Your task to perform on an android device: Search for "logitech g pro" on walmart.com, select the first entry, add it to the cart, then select checkout. Image 0: 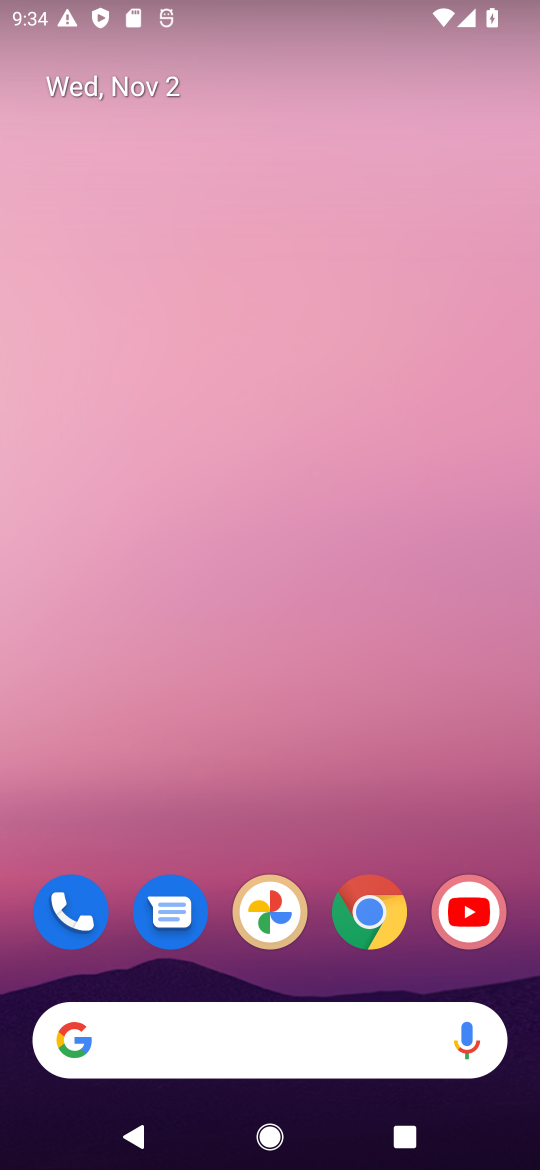
Step 0: drag from (320, 1065) to (177, 89)
Your task to perform on an android device: Search for "logitech g pro" on walmart.com, select the first entry, add it to the cart, then select checkout. Image 1: 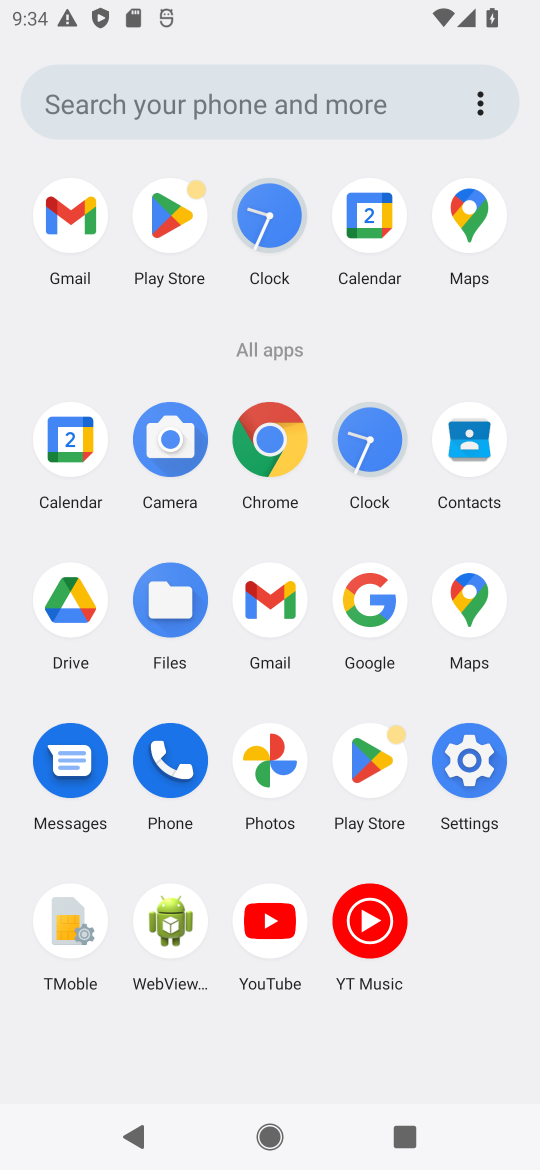
Step 1: click (272, 420)
Your task to perform on an android device: Search for "logitech g pro" on walmart.com, select the first entry, add it to the cart, then select checkout. Image 2: 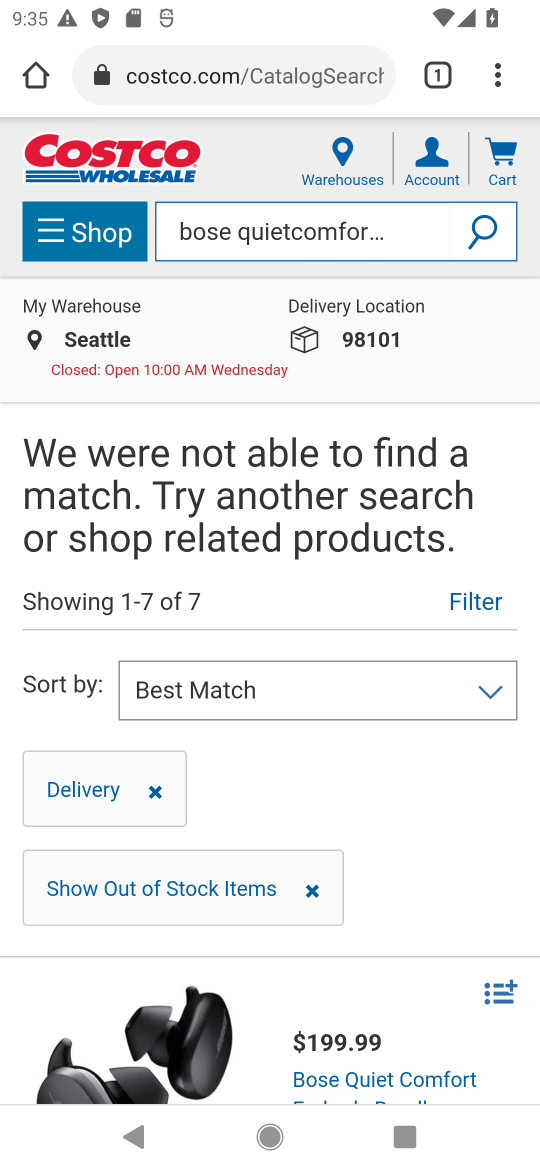
Step 2: task complete